Your task to perform on an android device: Open Google Chrome and click the shortcut for Amazon.com Image 0: 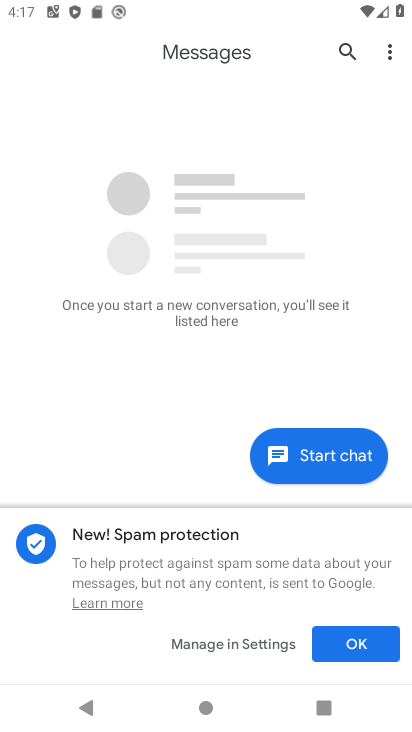
Step 0: press back button
Your task to perform on an android device: Open Google Chrome and click the shortcut for Amazon.com Image 1: 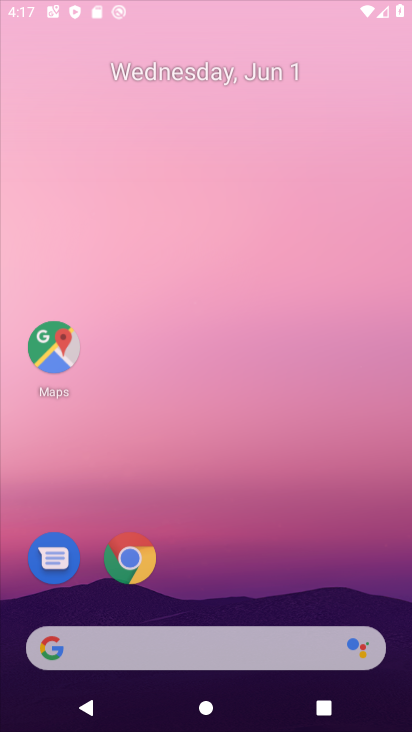
Step 1: press home button
Your task to perform on an android device: Open Google Chrome and click the shortcut for Amazon.com Image 2: 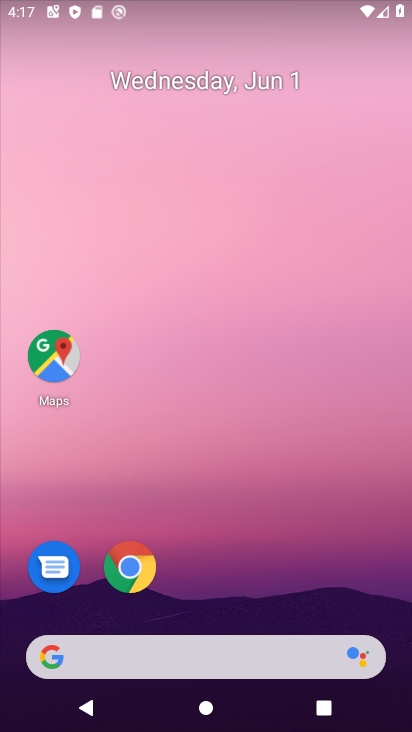
Step 2: click (120, 569)
Your task to perform on an android device: Open Google Chrome and click the shortcut for Amazon.com Image 3: 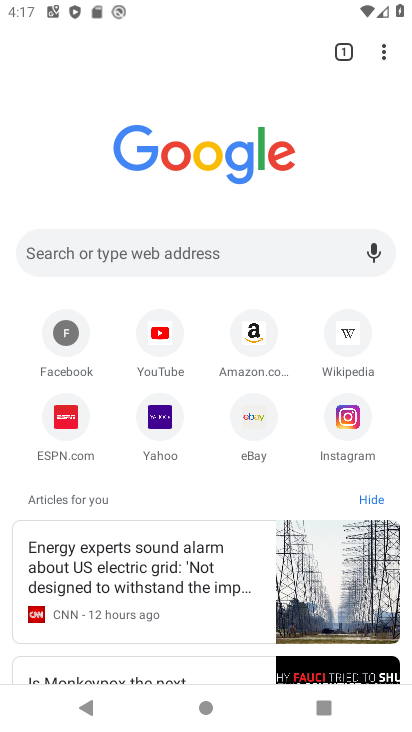
Step 3: click (252, 344)
Your task to perform on an android device: Open Google Chrome and click the shortcut for Amazon.com Image 4: 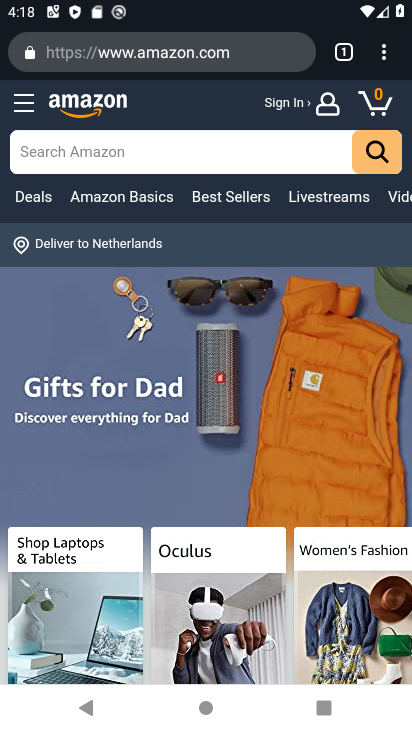
Step 4: task complete